Your task to perform on an android device: turn on translation in the chrome app Image 0: 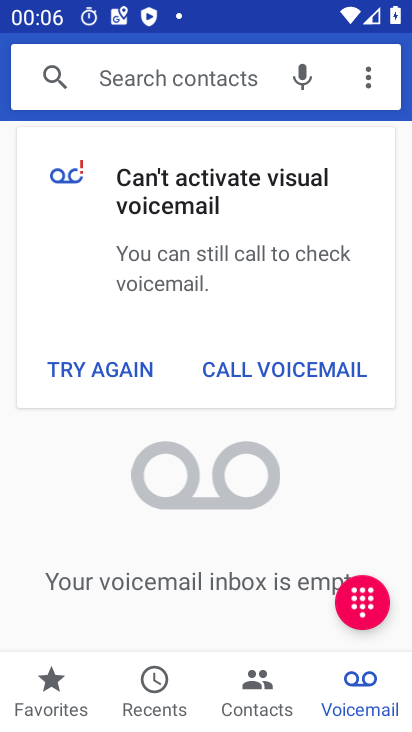
Step 0: press home button
Your task to perform on an android device: turn on translation in the chrome app Image 1: 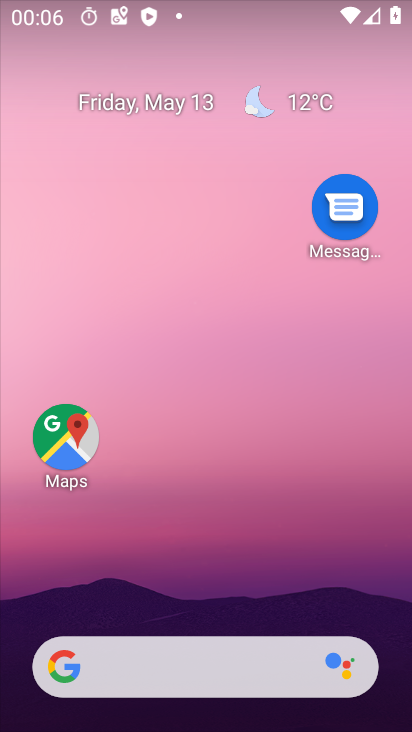
Step 1: drag from (293, 406) to (282, 121)
Your task to perform on an android device: turn on translation in the chrome app Image 2: 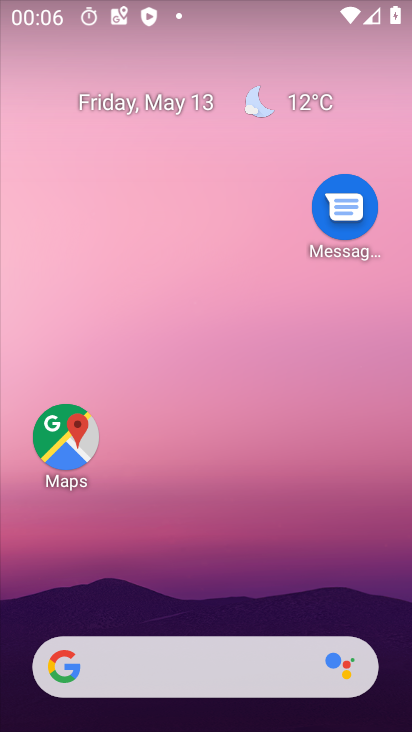
Step 2: drag from (315, 580) to (304, 104)
Your task to perform on an android device: turn on translation in the chrome app Image 3: 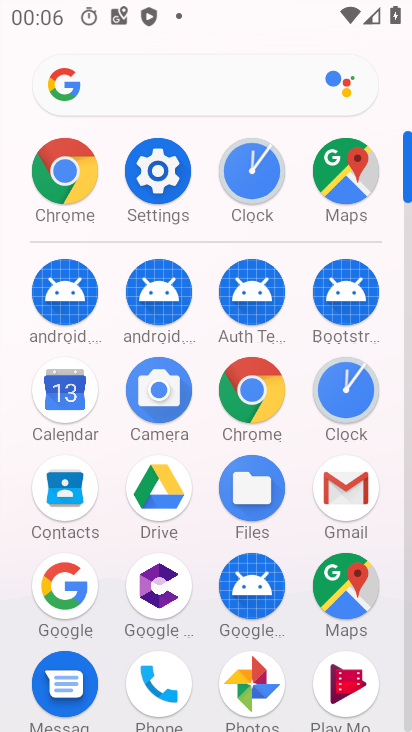
Step 3: click (251, 392)
Your task to perform on an android device: turn on translation in the chrome app Image 4: 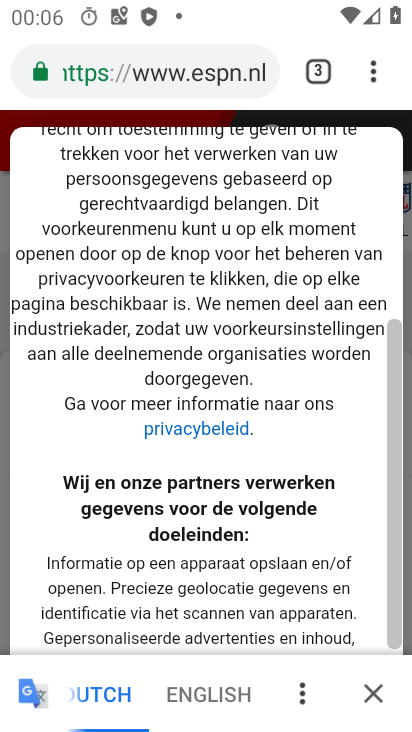
Step 4: drag from (367, 71) to (143, 571)
Your task to perform on an android device: turn on translation in the chrome app Image 5: 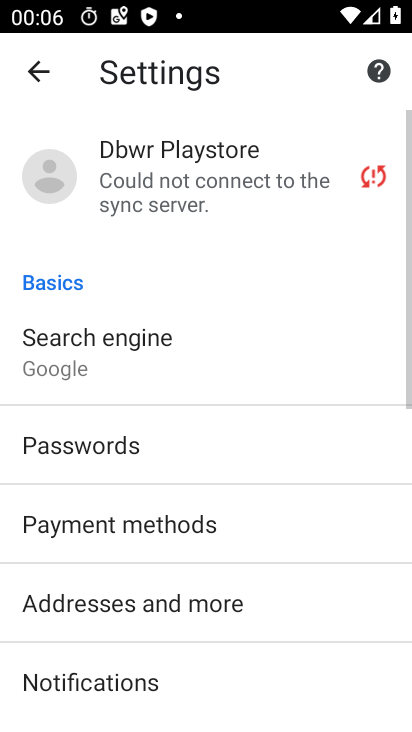
Step 5: drag from (280, 625) to (273, 221)
Your task to perform on an android device: turn on translation in the chrome app Image 6: 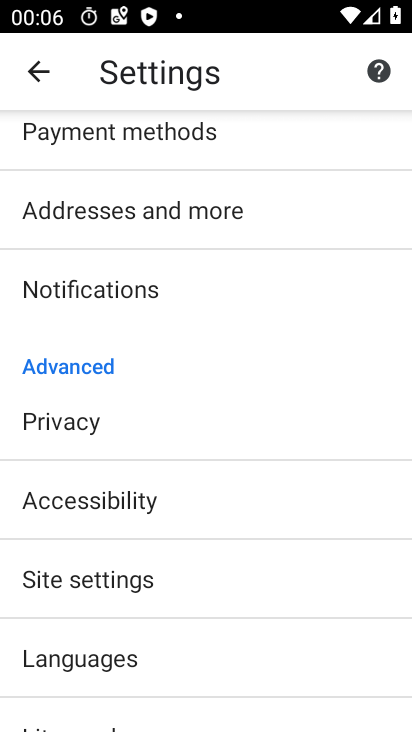
Step 6: click (110, 658)
Your task to perform on an android device: turn on translation in the chrome app Image 7: 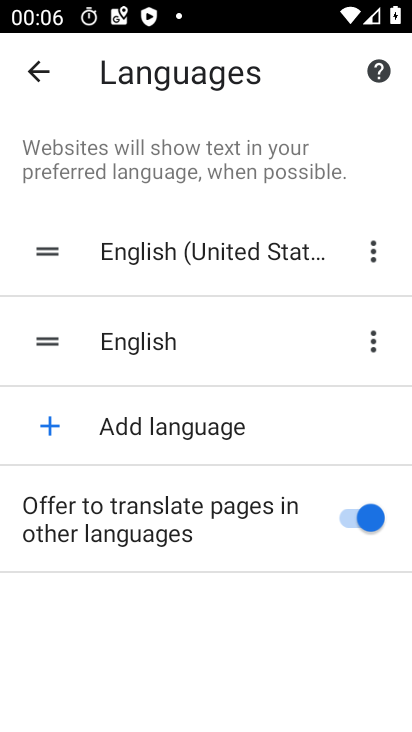
Step 7: task complete